Your task to perform on an android device: toggle notification dots Image 0: 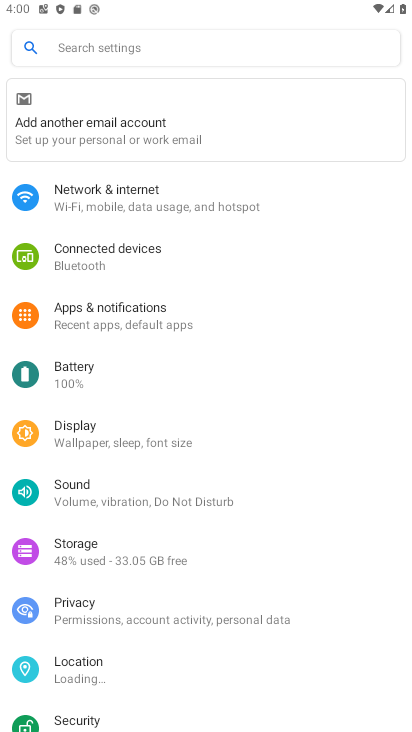
Step 0: press home button
Your task to perform on an android device: toggle notification dots Image 1: 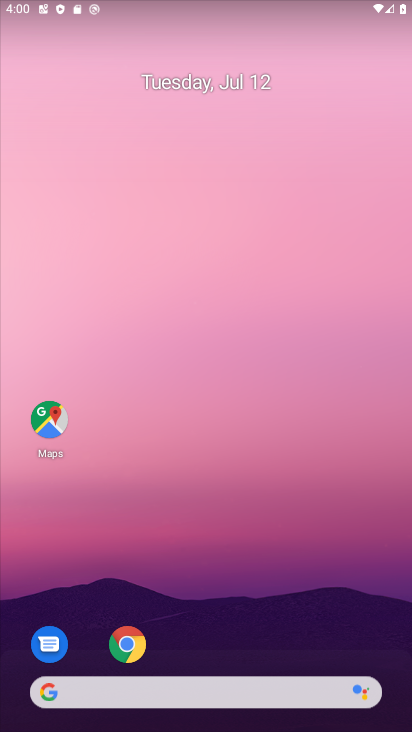
Step 1: drag from (267, 639) to (311, 171)
Your task to perform on an android device: toggle notification dots Image 2: 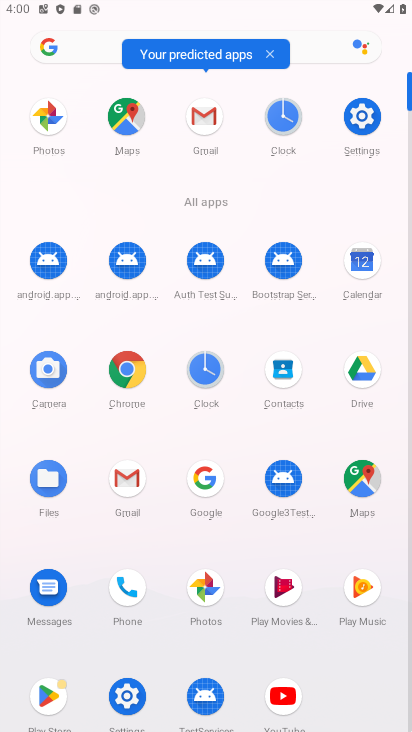
Step 2: click (376, 119)
Your task to perform on an android device: toggle notification dots Image 3: 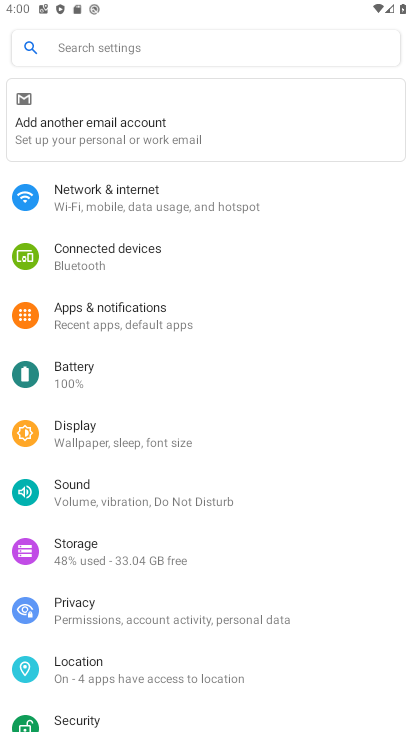
Step 3: click (96, 312)
Your task to perform on an android device: toggle notification dots Image 4: 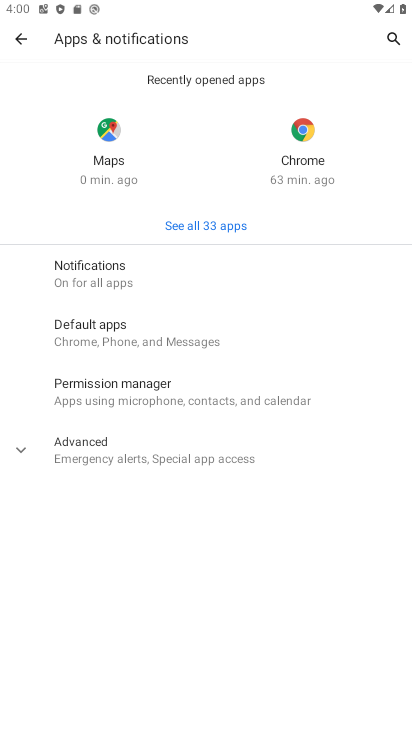
Step 4: click (125, 464)
Your task to perform on an android device: toggle notification dots Image 5: 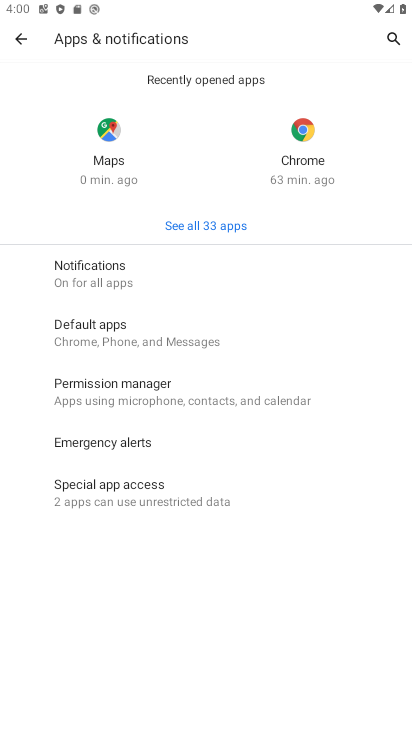
Step 5: click (228, 284)
Your task to perform on an android device: toggle notification dots Image 6: 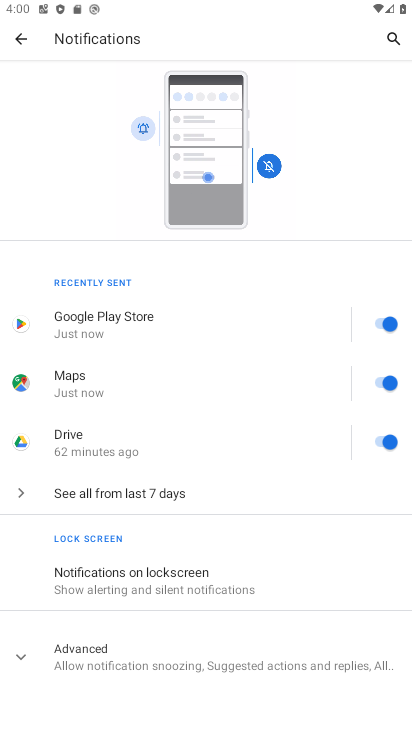
Step 6: click (220, 666)
Your task to perform on an android device: toggle notification dots Image 7: 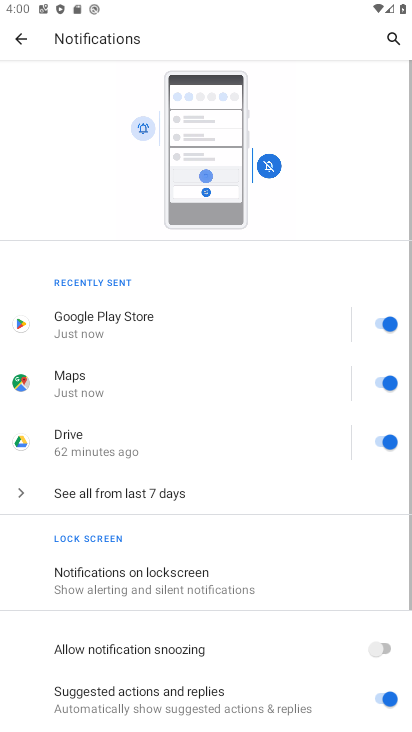
Step 7: drag from (220, 666) to (273, 449)
Your task to perform on an android device: toggle notification dots Image 8: 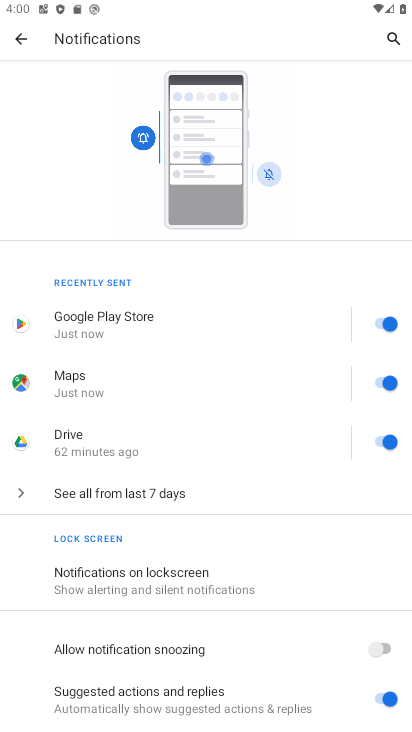
Step 8: drag from (267, 621) to (272, 333)
Your task to perform on an android device: toggle notification dots Image 9: 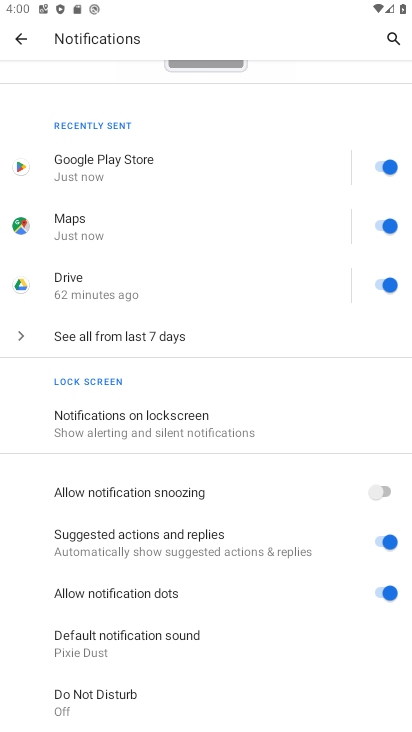
Step 9: click (390, 595)
Your task to perform on an android device: toggle notification dots Image 10: 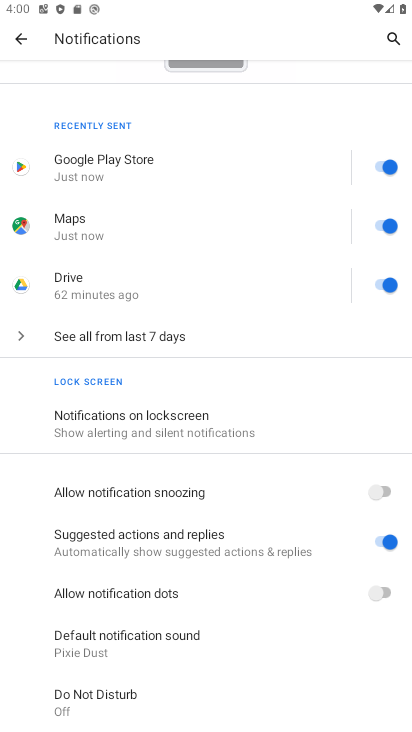
Step 10: task complete